Your task to perform on an android device: Open the Play Movies app and select the watchlist tab. Image 0: 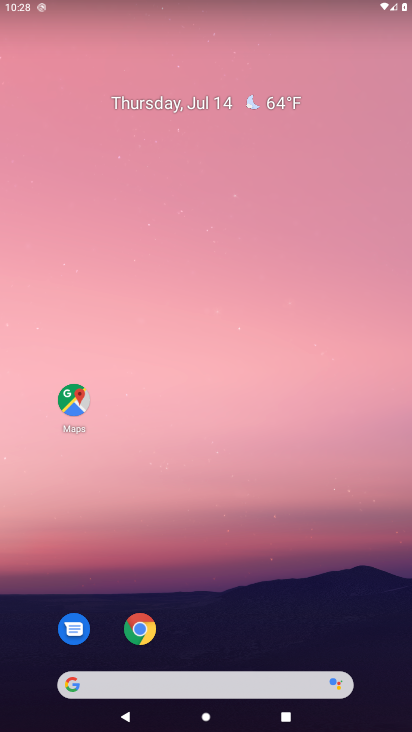
Step 0: drag from (142, 673) to (166, 352)
Your task to perform on an android device: Open the Play Movies app and select the watchlist tab. Image 1: 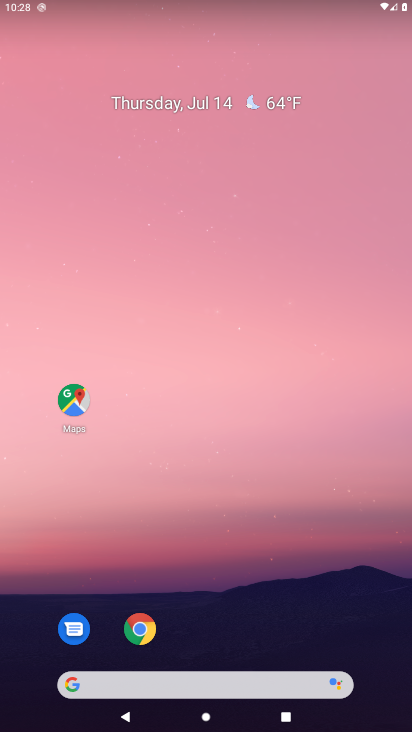
Step 1: drag from (235, 648) to (186, 310)
Your task to perform on an android device: Open the Play Movies app and select the watchlist tab. Image 2: 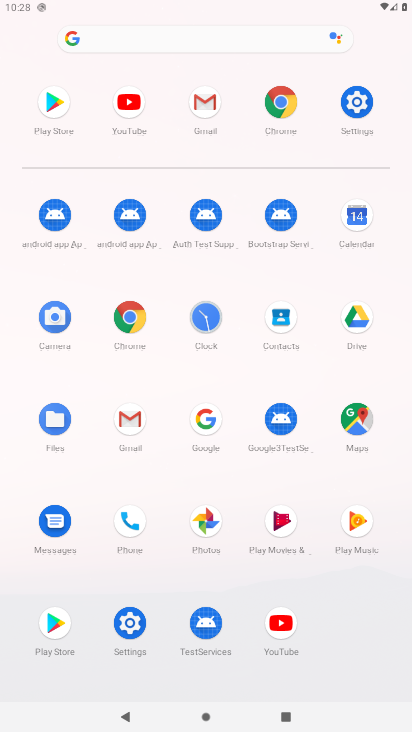
Step 2: click (278, 519)
Your task to perform on an android device: Open the Play Movies app and select the watchlist tab. Image 3: 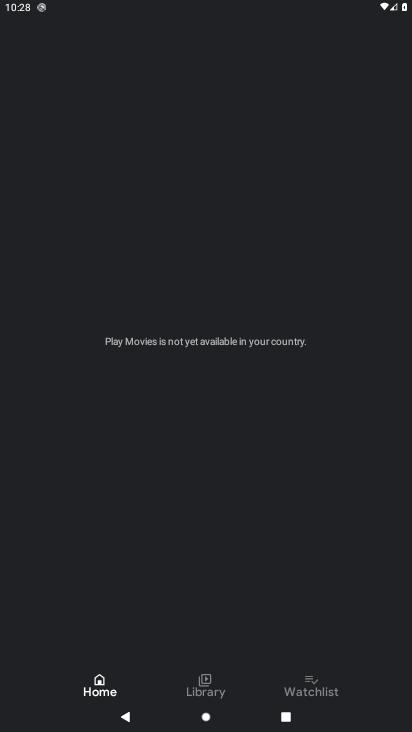
Step 3: click (313, 690)
Your task to perform on an android device: Open the Play Movies app and select the watchlist tab. Image 4: 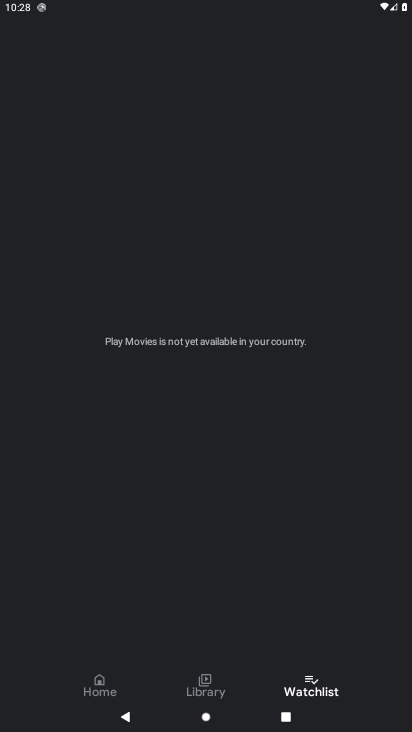
Step 4: task complete